Your task to perform on an android device: Search for Mexican restaurants on Maps Image 0: 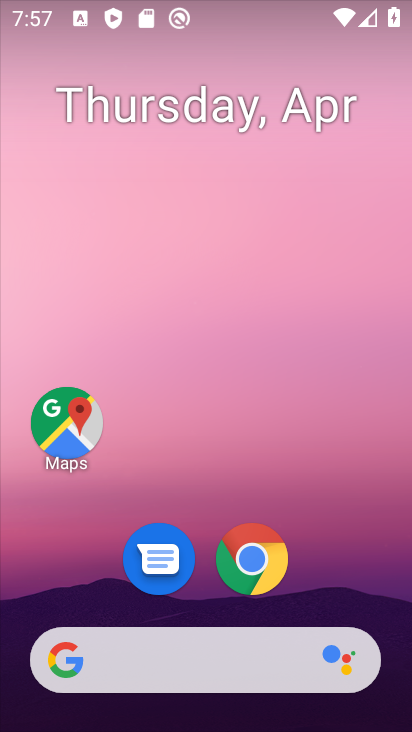
Step 0: click (66, 442)
Your task to perform on an android device: Search for Mexican restaurants on Maps Image 1: 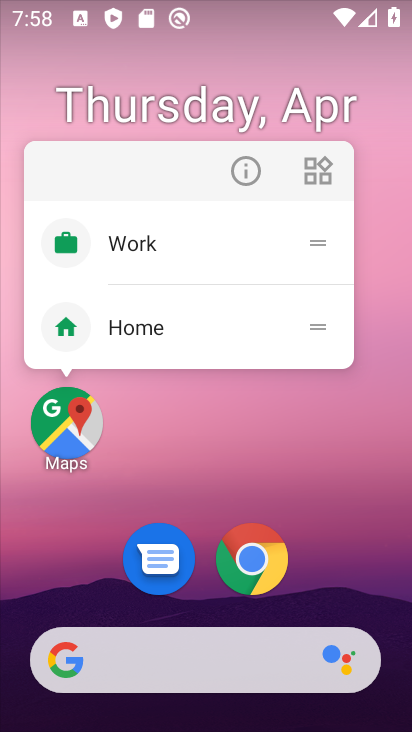
Step 1: click (67, 442)
Your task to perform on an android device: Search for Mexican restaurants on Maps Image 2: 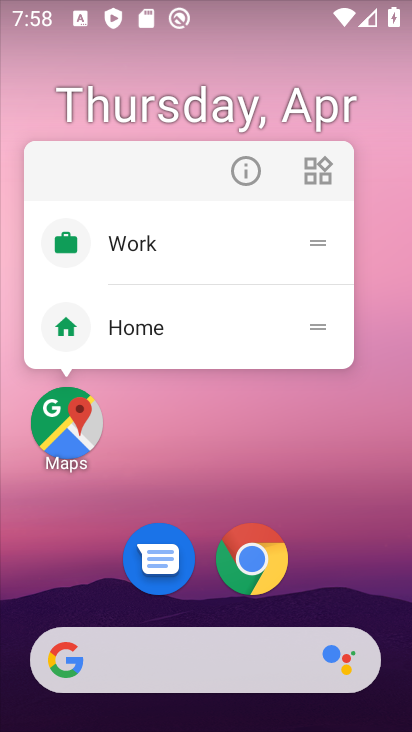
Step 2: click (67, 442)
Your task to perform on an android device: Search for Mexican restaurants on Maps Image 3: 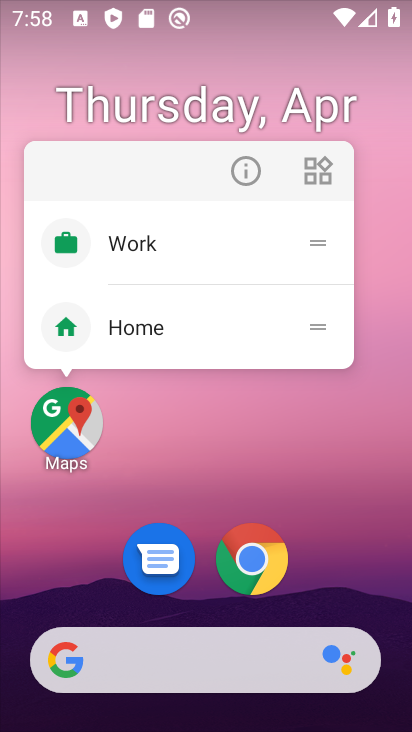
Step 3: click (67, 442)
Your task to perform on an android device: Search for Mexican restaurants on Maps Image 4: 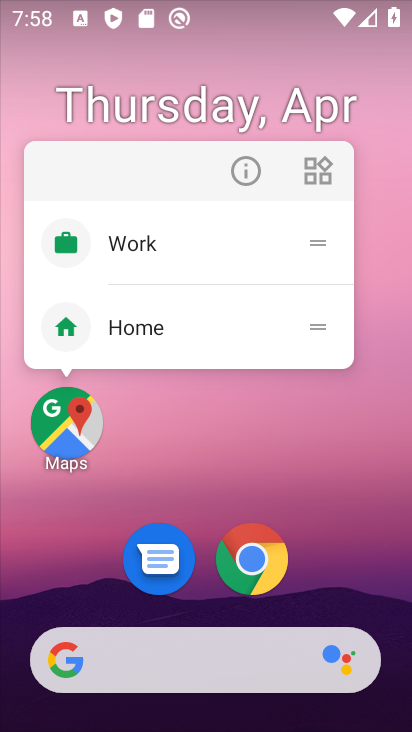
Step 4: click (68, 442)
Your task to perform on an android device: Search for Mexican restaurants on Maps Image 5: 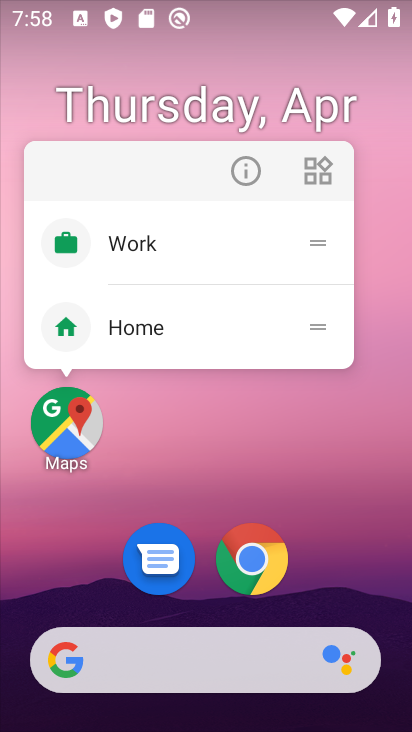
Step 5: click (38, 421)
Your task to perform on an android device: Search for Mexican restaurants on Maps Image 6: 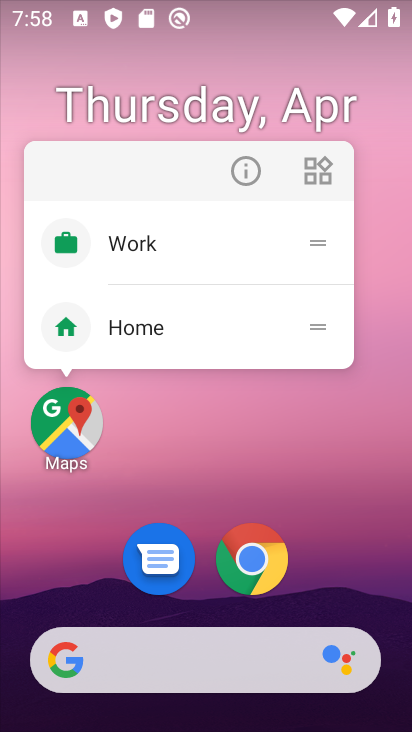
Step 6: click (38, 421)
Your task to perform on an android device: Search for Mexican restaurants on Maps Image 7: 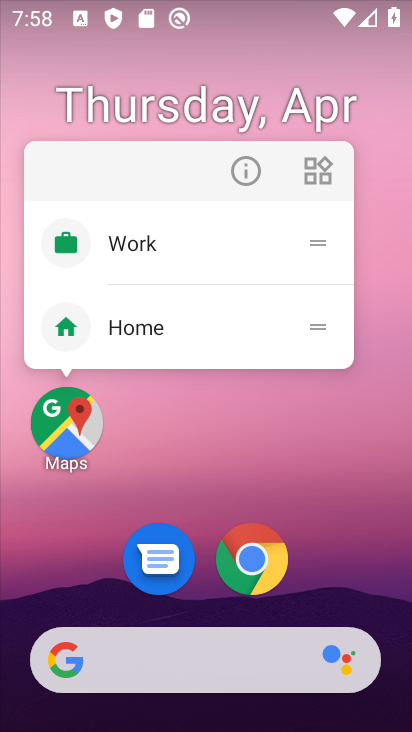
Step 7: click (38, 421)
Your task to perform on an android device: Search for Mexican restaurants on Maps Image 8: 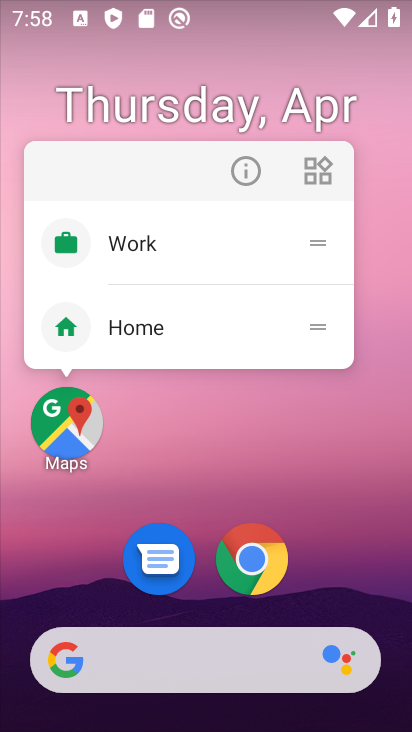
Step 8: click (57, 438)
Your task to perform on an android device: Search for Mexican restaurants on Maps Image 9: 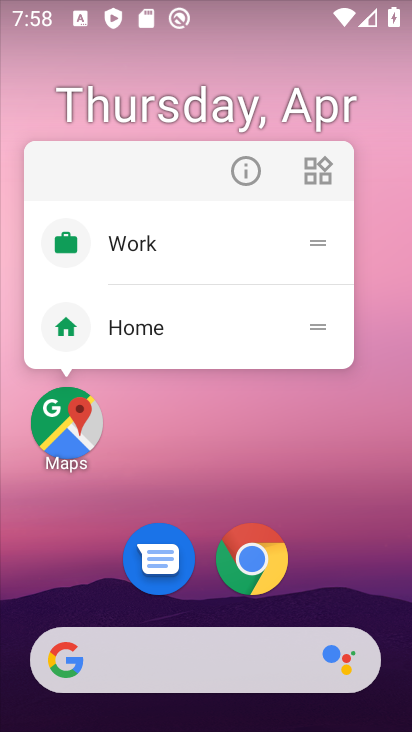
Step 9: click (57, 438)
Your task to perform on an android device: Search for Mexican restaurants on Maps Image 10: 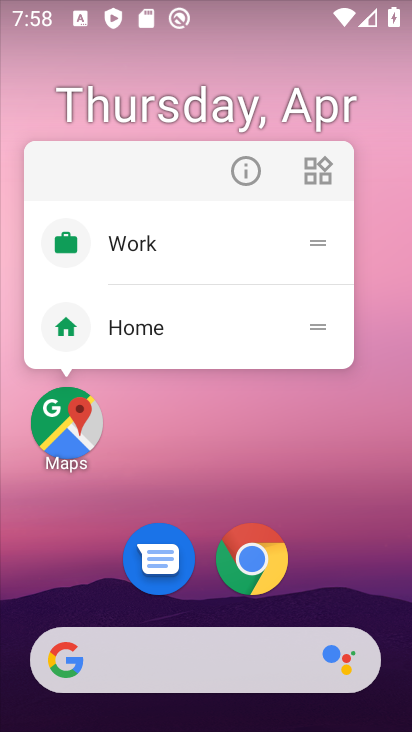
Step 10: click (57, 438)
Your task to perform on an android device: Search for Mexican restaurants on Maps Image 11: 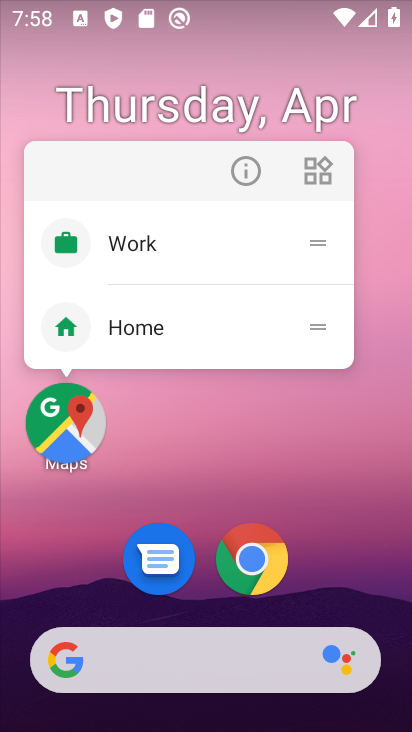
Step 11: click (83, 458)
Your task to perform on an android device: Search for Mexican restaurants on Maps Image 12: 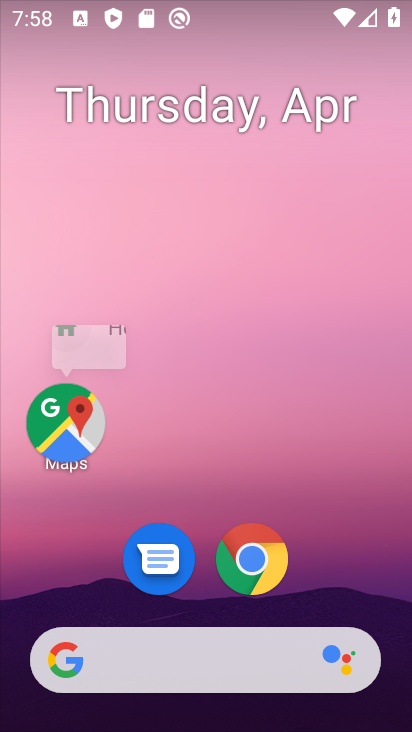
Step 12: click (83, 458)
Your task to perform on an android device: Search for Mexican restaurants on Maps Image 13: 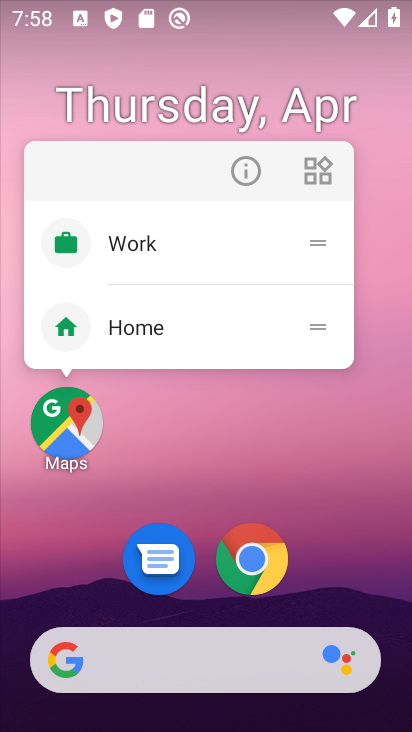
Step 13: click (70, 446)
Your task to perform on an android device: Search for Mexican restaurants on Maps Image 14: 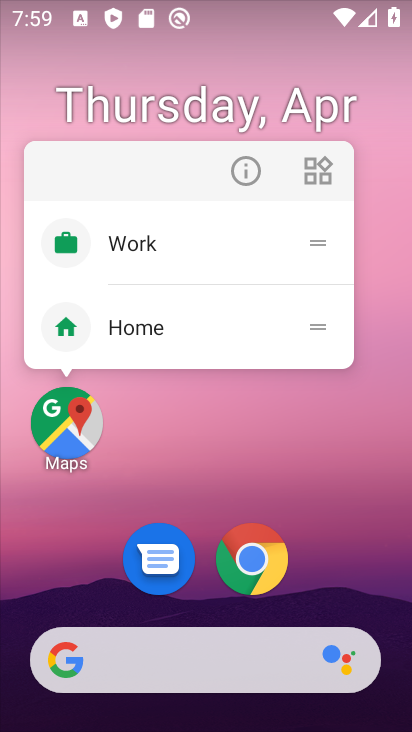
Step 14: click (55, 437)
Your task to perform on an android device: Search for Mexican restaurants on Maps Image 15: 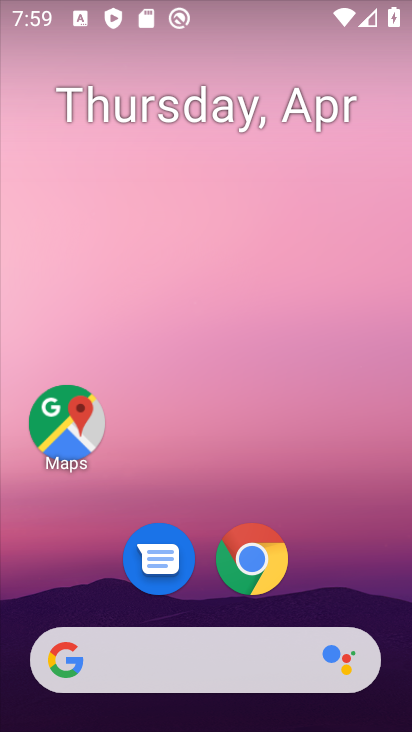
Step 15: click (55, 436)
Your task to perform on an android device: Search for Mexican restaurants on Maps Image 16: 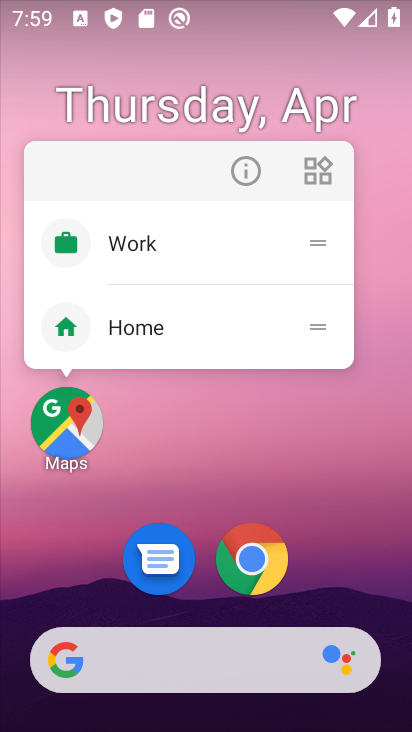
Step 16: click (55, 436)
Your task to perform on an android device: Search for Mexican restaurants on Maps Image 17: 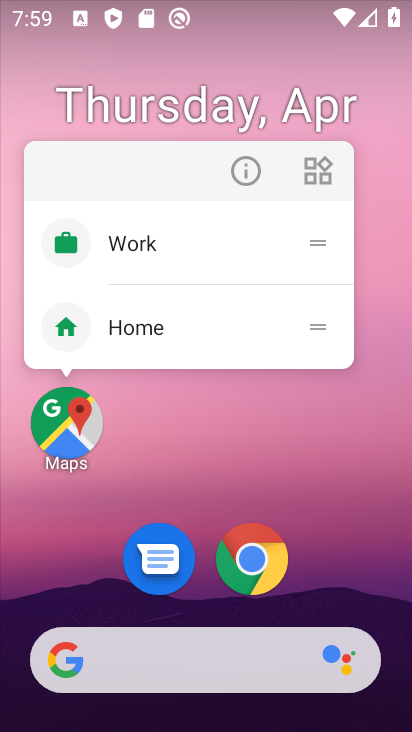
Step 17: click (55, 436)
Your task to perform on an android device: Search for Mexican restaurants on Maps Image 18: 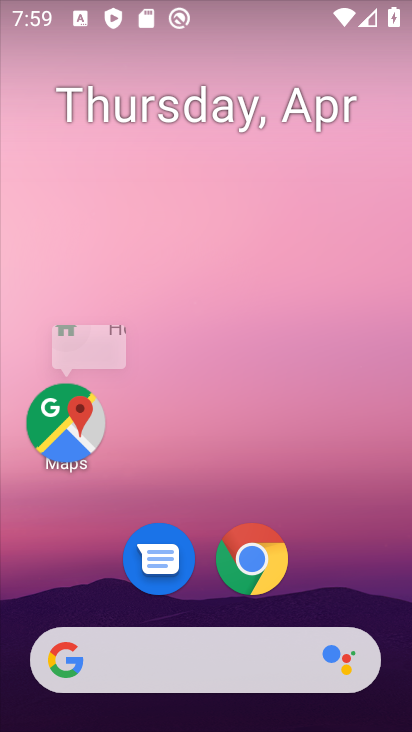
Step 18: click (55, 436)
Your task to perform on an android device: Search for Mexican restaurants on Maps Image 19: 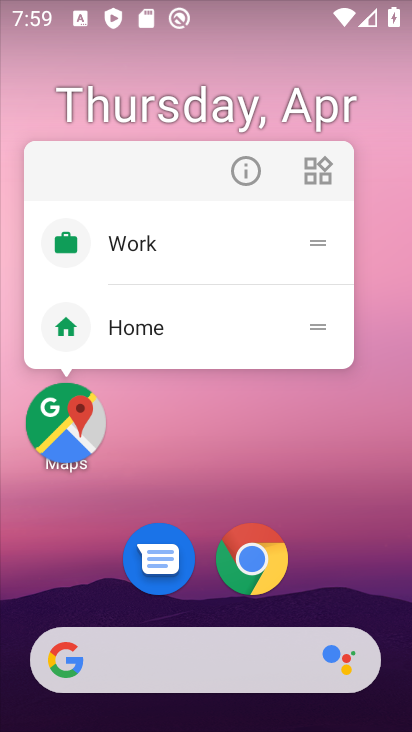
Step 19: click (55, 436)
Your task to perform on an android device: Search for Mexican restaurants on Maps Image 20: 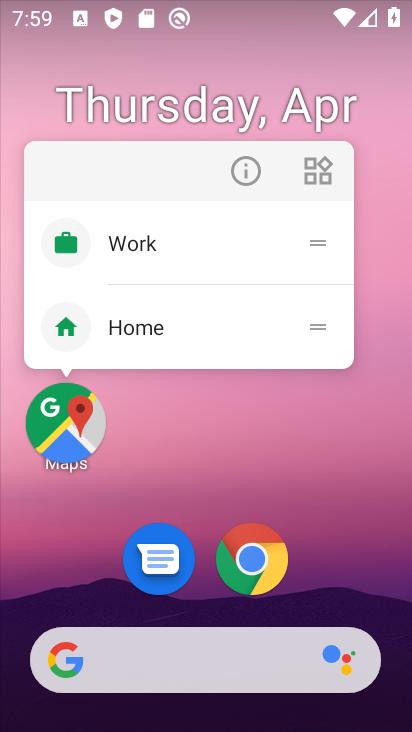
Step 20: click (55, 436)
Your task to perform on an android device: Search for Mexican restaurants on Maps Image 21: 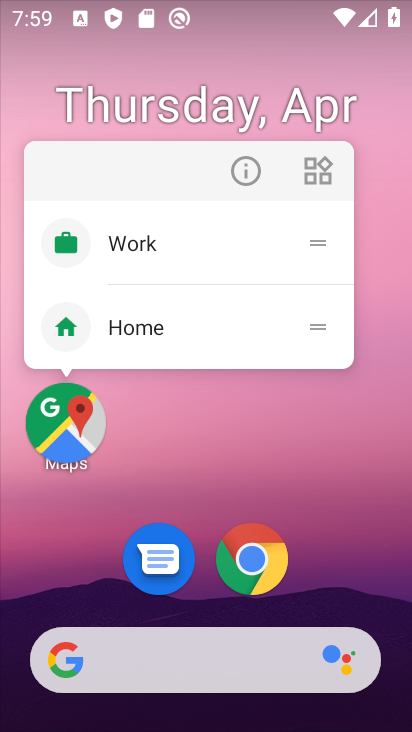
Step 21: click (55, 436)
Your task to perform on an android device: Search for Mexican restaurants on Maps Image 22: 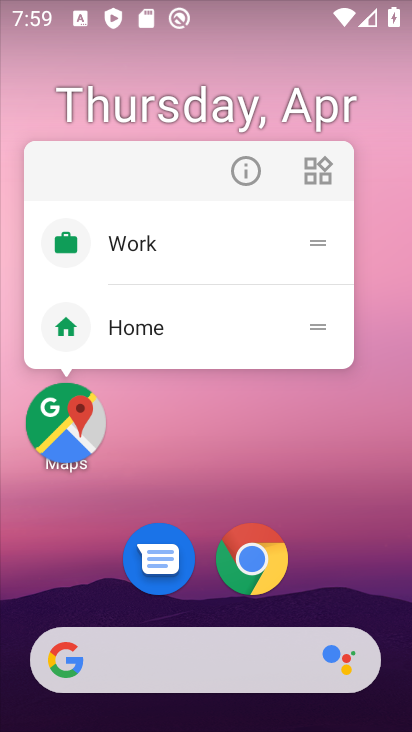
Step 22: click (55, 436)
Your task to perform on an android device: Search for Mexican restaurants on Maps Image 23: 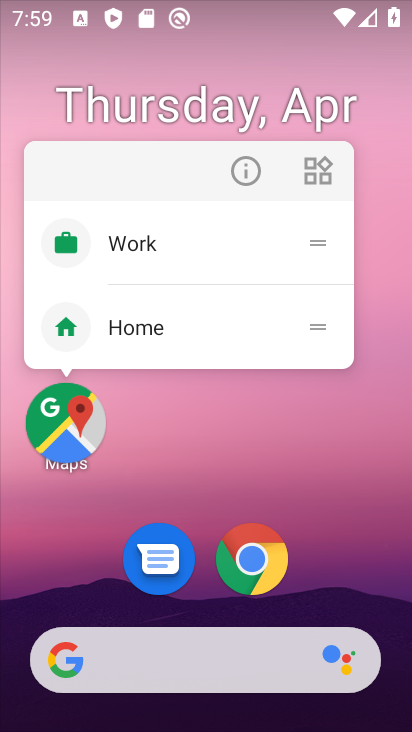
Step 23: click (55, 436)
Your task to perform on an android device: Search for Mexican restaurants on Maps Image 24: 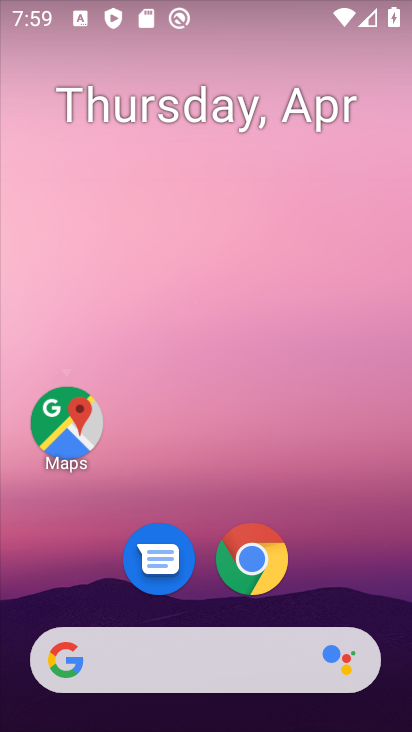
Step 24: click (55, 436)
Your task to perform on an android device: Search for Mexican restaurants on Maps Image 25: 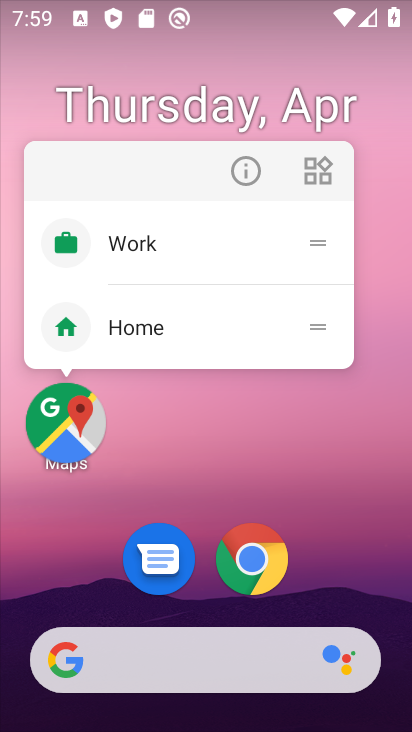
Step 25: click (55, 436)
Your task to perform on an android device: Search for Mexican restaurants on Maps Image 26: 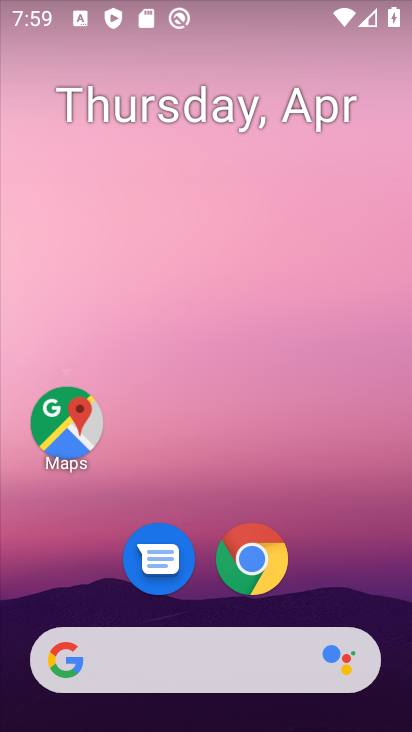
Step 26: click (55, 436)
Your task to perform on an android device: Search for Mexican restaurants on Maps Image 27: 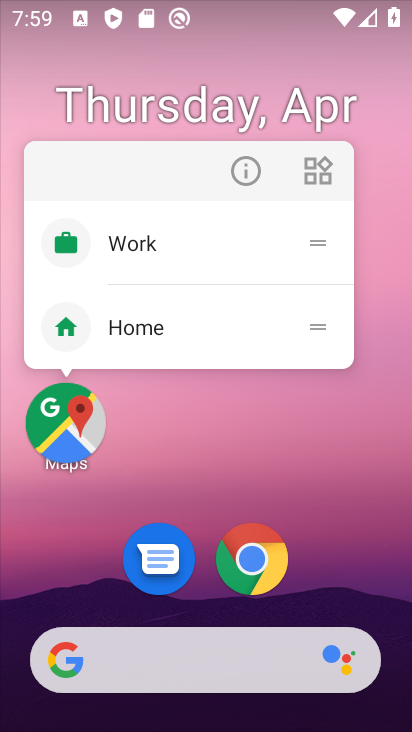
Step 27: click (55, 436)
Your task to perform on an android device: Search for Mexican restaurants on Maps Image 28: 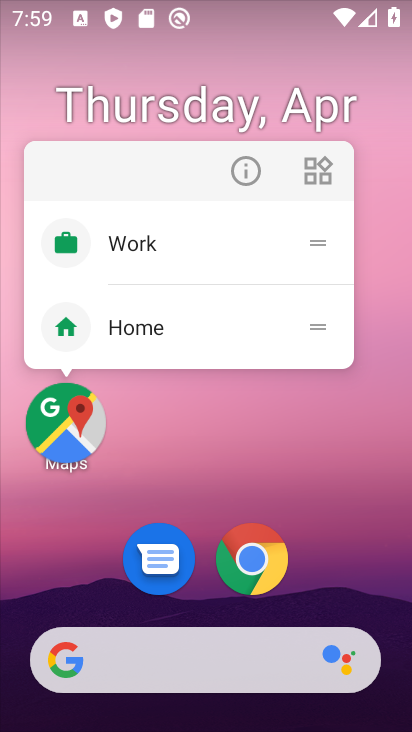
Step 28: click (55, 436)
Your task to perform on an android device: Search for Mexican restaurants on Maps Image 29: 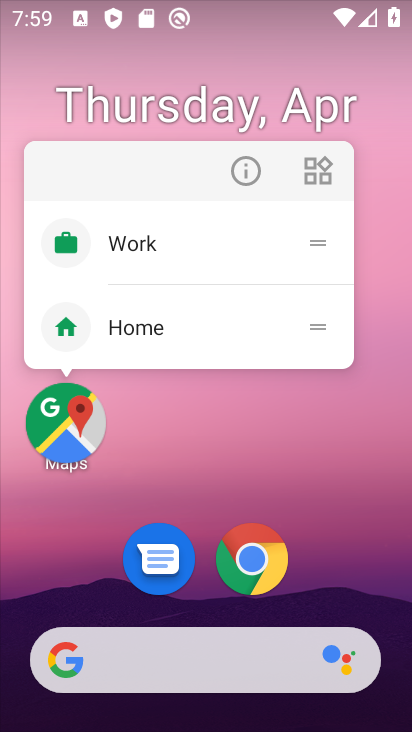
Step 29: click (55, 436)
Your task to perform on an android device: Search for Mexican restaurants on Maps Image 30: 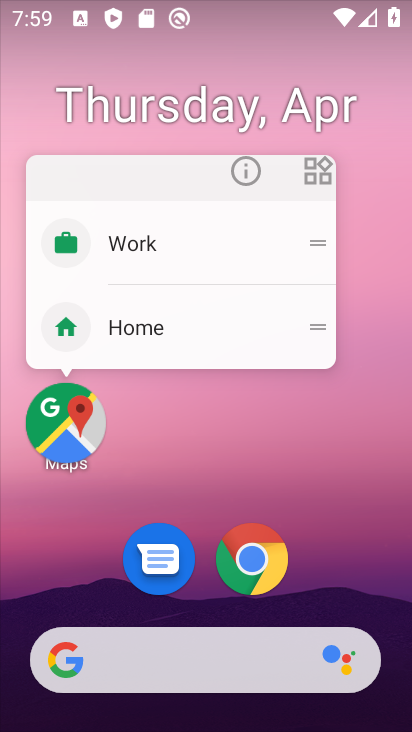
Step 30: click (55, 436)
Your task to perform on an android device: Search for Mexican restaurants on Maps Image 31: 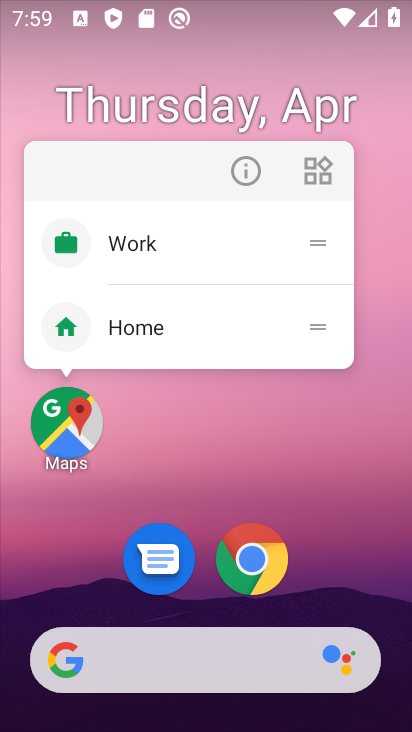
Step 31: click (55, 436)
Your task to perform on an android device: Search for Mexican restaurants on Maps Image 32: 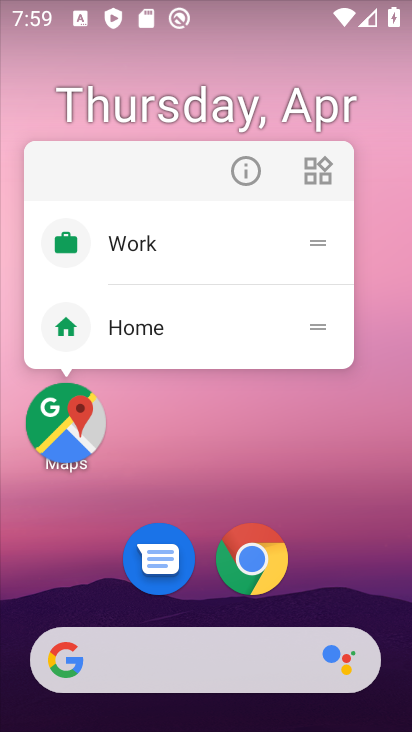
Step 32: click (55, 436)
Your task to perform on an android device: Search for Mexican restaurants on Maps Image 33: 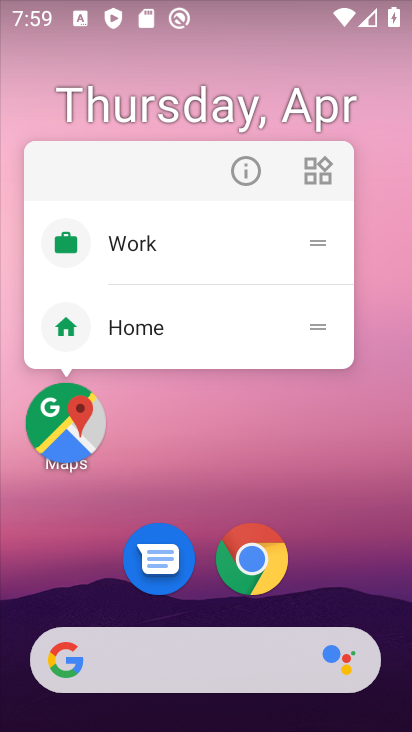
Step 33: click (55, 436)
Your task to perform on an android device: Search for Mexican restaurants on Maps Image 34: 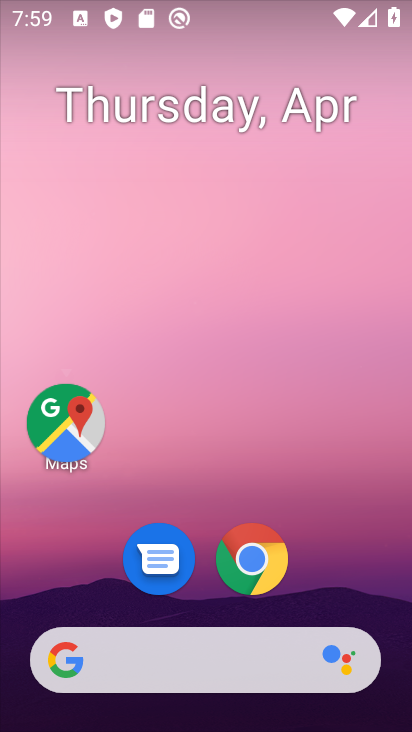
Step 34: click (55, 436)
Your task to perform on an android device: Search for Mexican restaurants on Maps Image 35: 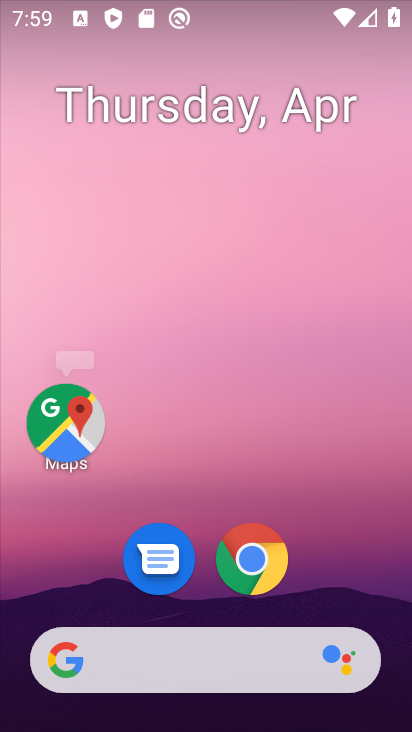
Step 35: click (55, 436)
Your task to perform on an android device: Search for Mexican restaurants on Maps Image 36: 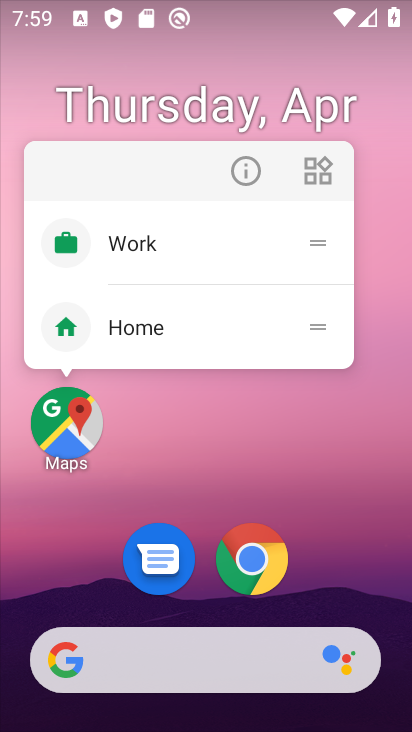
Step 36: click (55, 436)
Your task to perform on an android device: Search for Mexican restaurants on Maps Image 37: 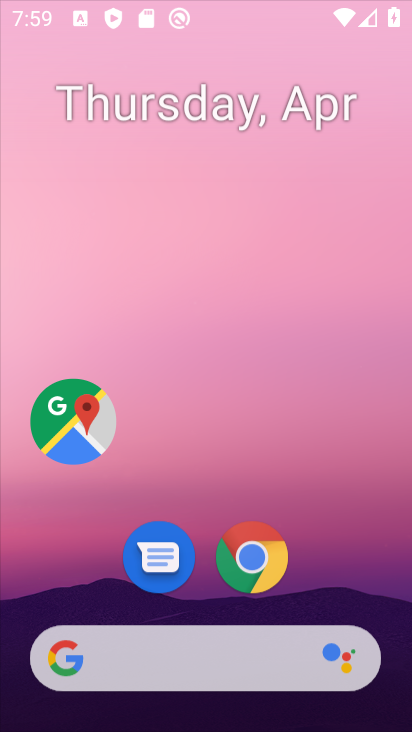
Step 37: click (55, 436)
Your task to perform on an android device: Search for Mexican restaurants on Maps Image 38: 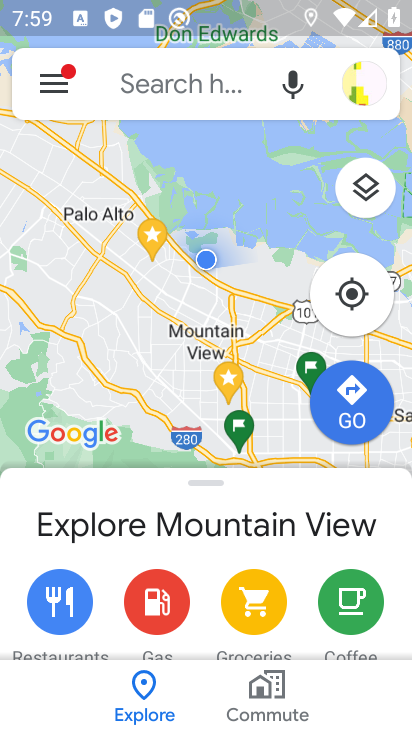
Step 38: click (206, 82)
Your task to perform on an android device: Search for Mexican restaurants on Maps Image 39: 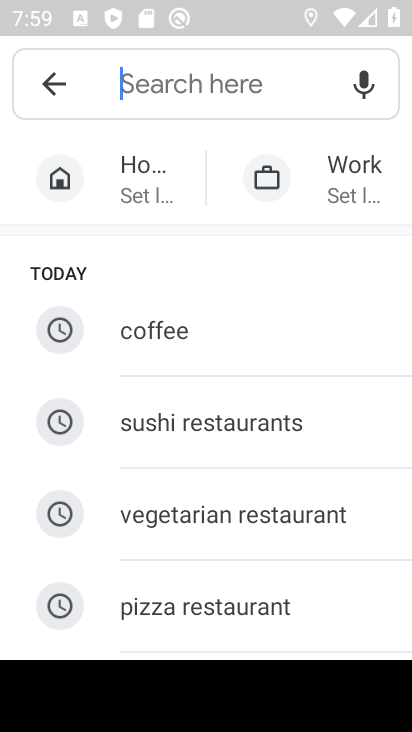
Step 39: drag from (318, 605) to (337, 189)
Your task to perform on an android device: Search for Mexican restaurants on Maps Image 40: 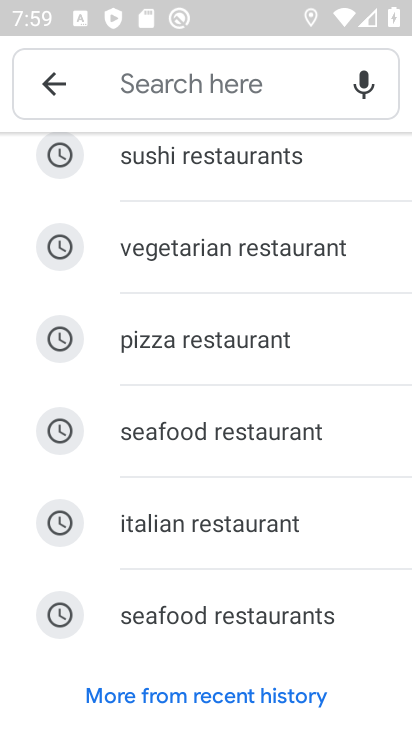
Step 40: click (255, 86)
Your task to perform on an android device: Search for Mexican restaurants on Maps Image 41: 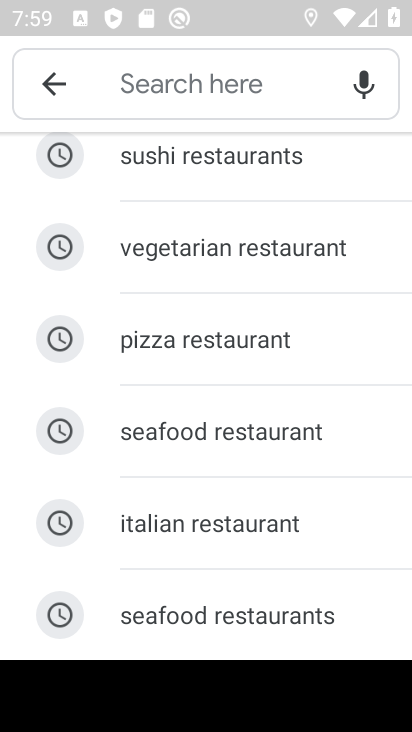
Step 41: type "mexican "
Your task to perform on an android device: Search for Mexican restaurants on Maps Image 42: 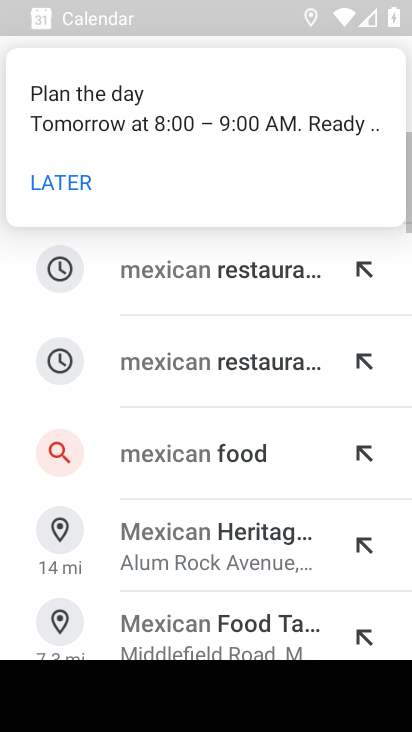
Step 42: click (295, 263)
Your task to perform on an android device: Search for Mexican restaurants on Maps Image 43: 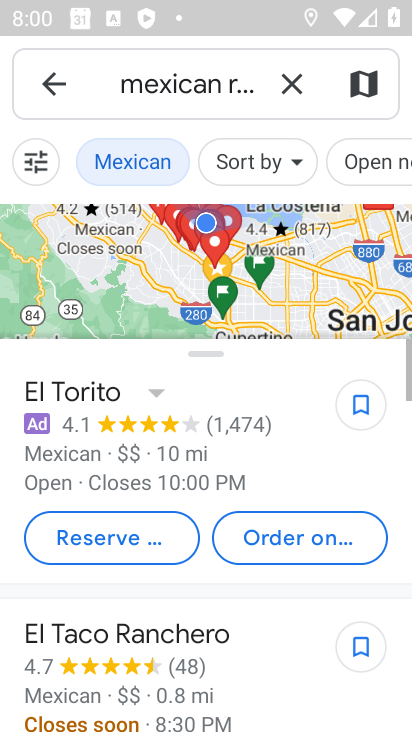
Step 43: task complete